Your task to perform on an android device: visit the assistant section in the google photos Image 0: 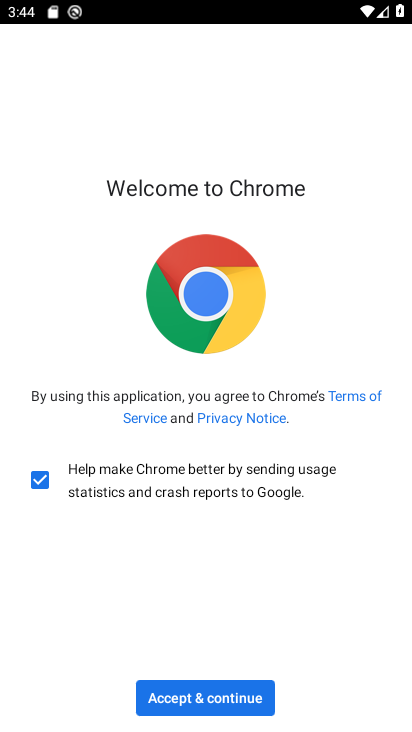
Step 0: press home button
Your task to perform on an android device: visit the assistant section in the google photos Image 1: 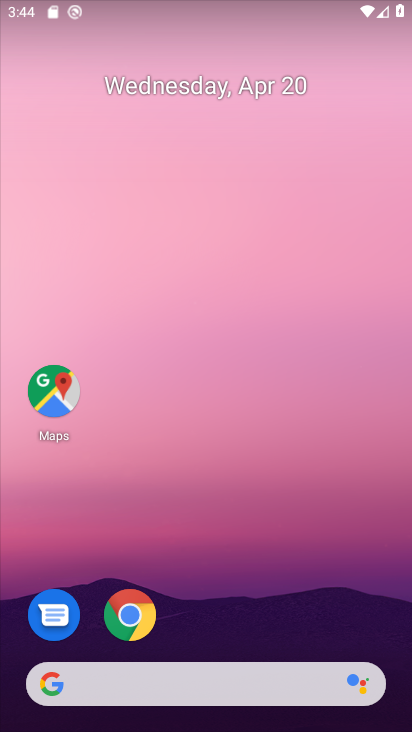
Step 1: drag from (209, 631) to (309, 248)
Your task to perform on an android device: visit the assistant section in the google photos Image 2: 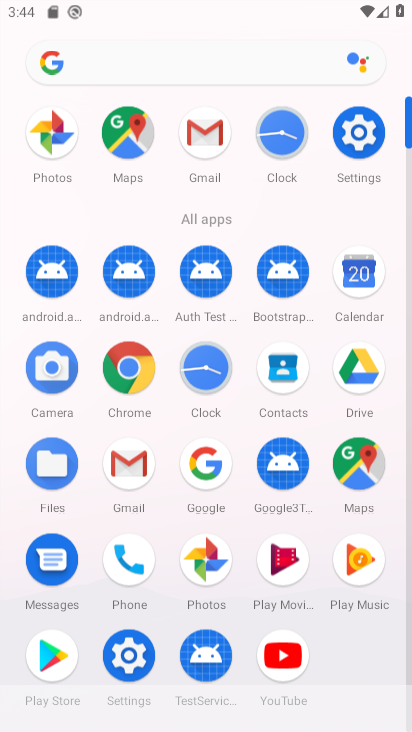
Step 2: click (288, 253)
Your task to perform on an android device: visit the assistant section in the google photos Image 3: 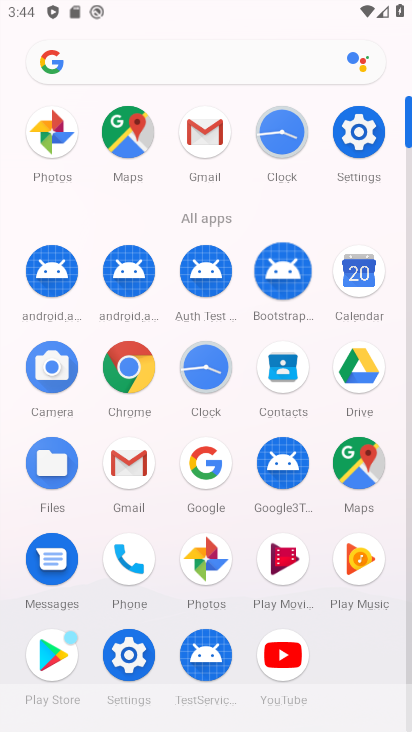
Step 3: drag from (195, 536) to (203, 586)
Your task to perform on an android device: visit the assistant section in the google photos Image 4: 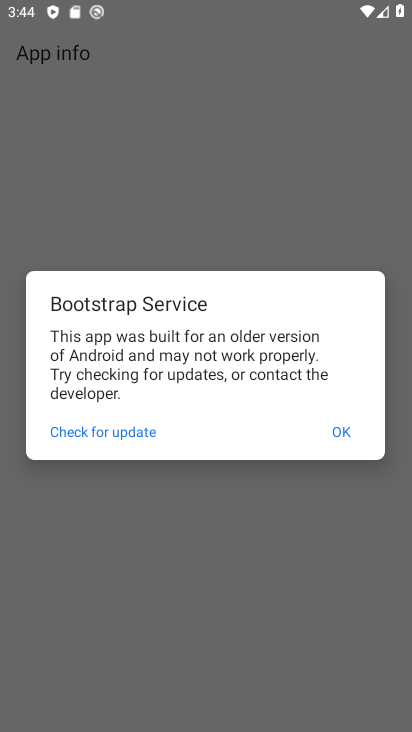
Step 4: press home button
Your task to perform on an android device: visit the assistant section in the google photos Image 5: 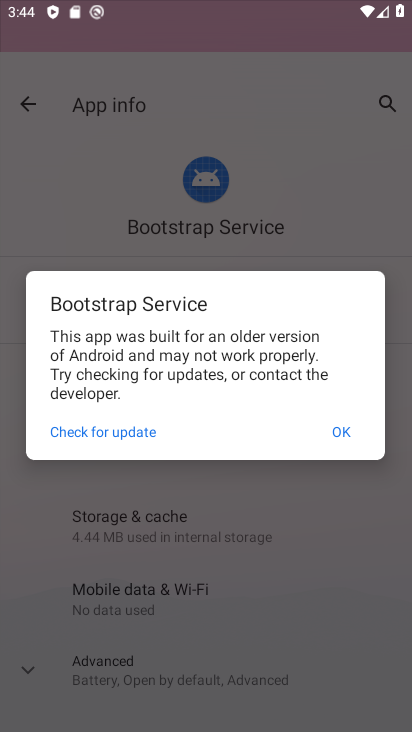
Step 5: press home button
Your task to perform on an android device: visit the assistant section in the google photos Image 6: 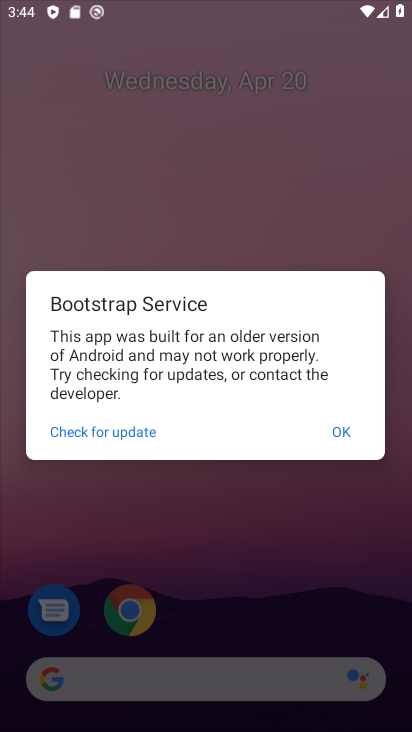
Step 6: click (346, 438)
Your task to perform on an android device: visit the assistant section in the google photos Image 7: 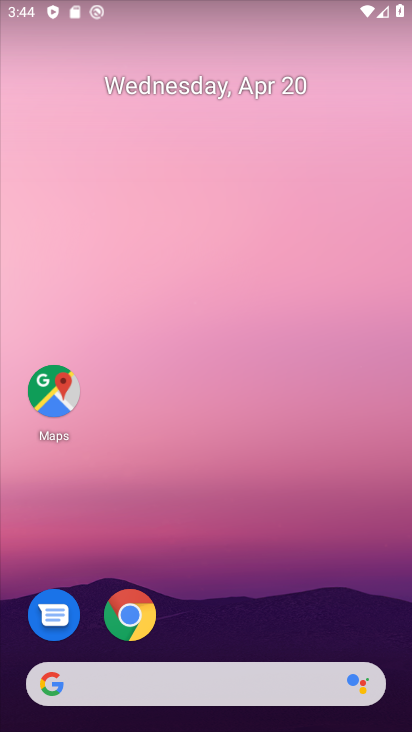
Step 7: drag from (270, 342) to (287, 249)
Your task to perform on an android device: visit the assistant section in the google photos Image 8: 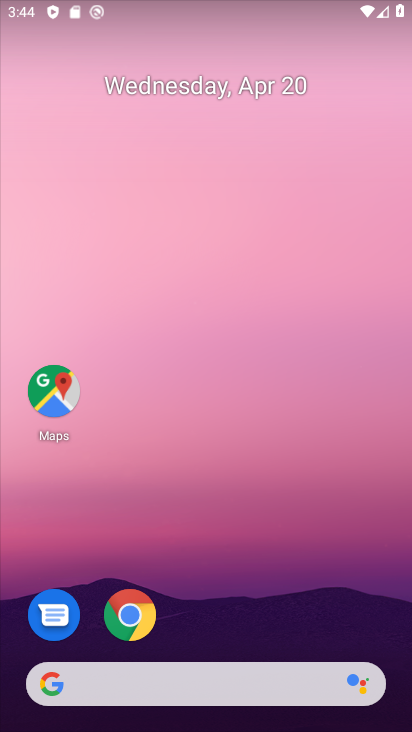
Step 8: drag from (268, 401) to (308, 176)
Your task to perform on an android device: visit the assistant section in the google photos Image 9: 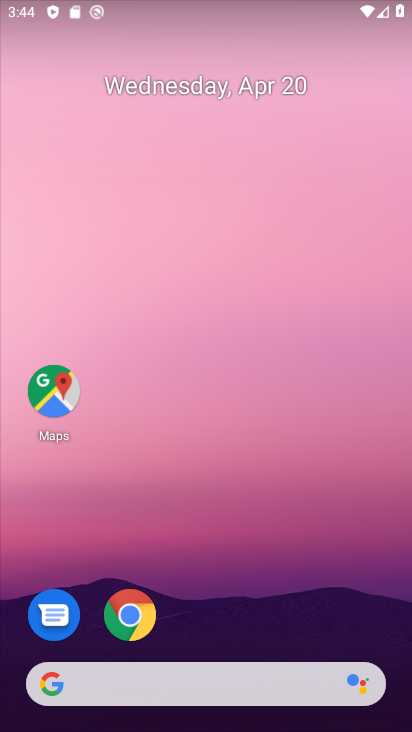
Step 9: drag from (241, 535) to (312, 179)
Your task to perform on an android device: visit the assistant section in the google photos Image 10: 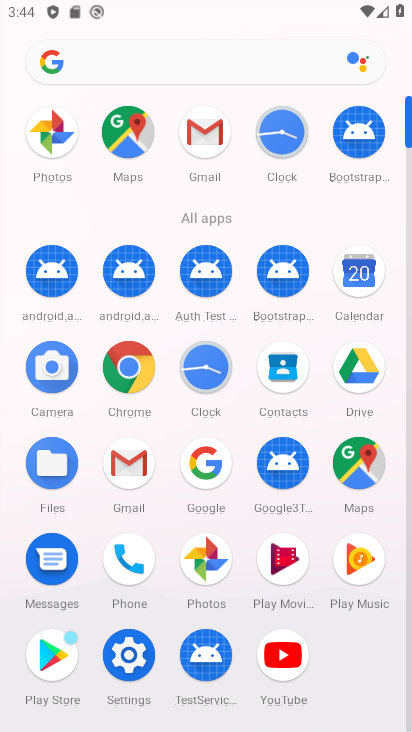
Step 10: click (207, 555)
Your task to perform on an android device: visit the assistant section in the google photos Image 11: 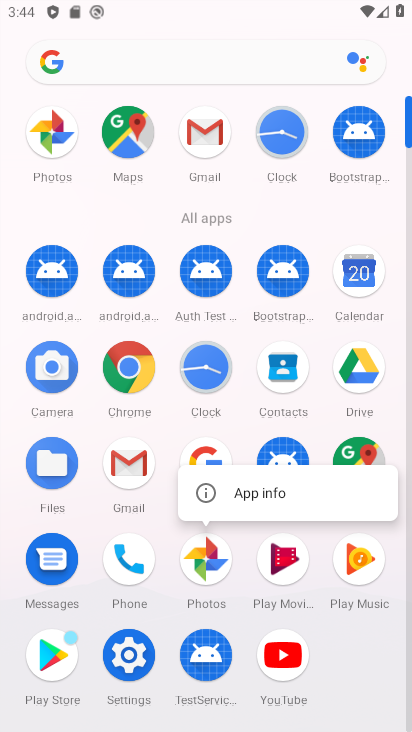
Step 11: click (212, 555)
Your task to perform on an android device: visit the assistant section in the google photos Image 12: 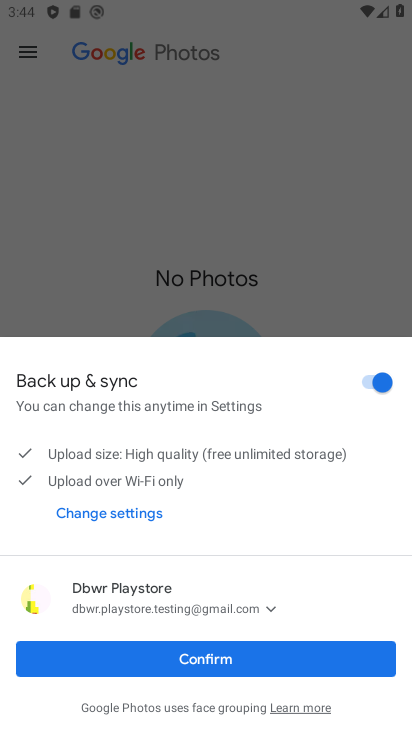
Step 12: click (215, 656)
Your task to perform on an android device: visit the assistant section in the google photos Image 13: 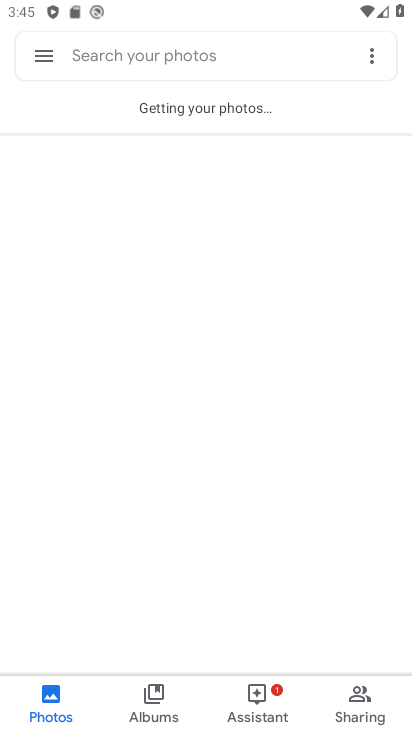
Step 13: click (255, 704)
Your task to perform on an android device: visit the assistant section in the google photos Image 14: 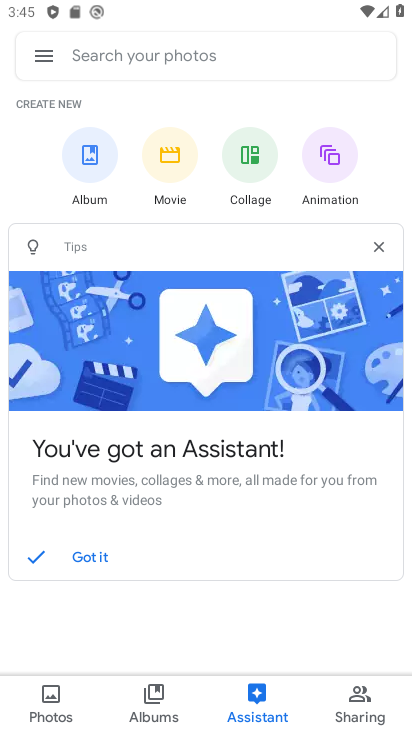
Step 14: task complete